Your task to perform on an android device: delete browsing data in the chrome app Image 0: 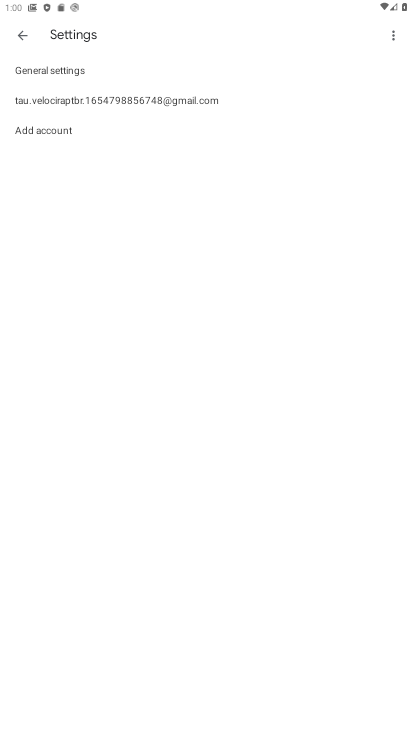
Step 0: drag from (230, 611) to (133, 223)
Your task to perform on an android device: delete browsing data in the chrome app Image 1: 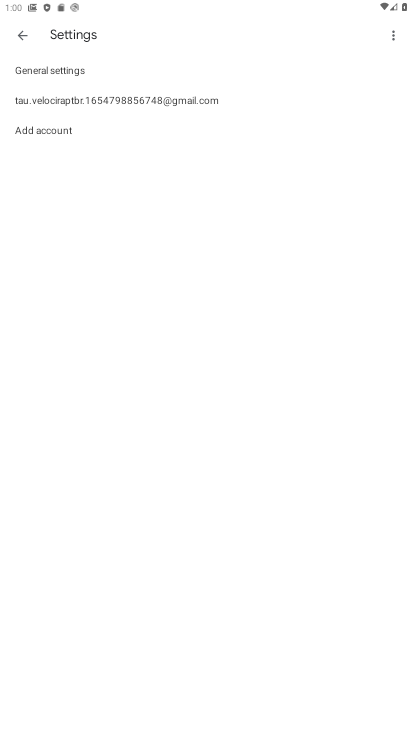
Step 1: press home button
Your task to perform on an android device: delete browsing data in the chrome app Image 2: 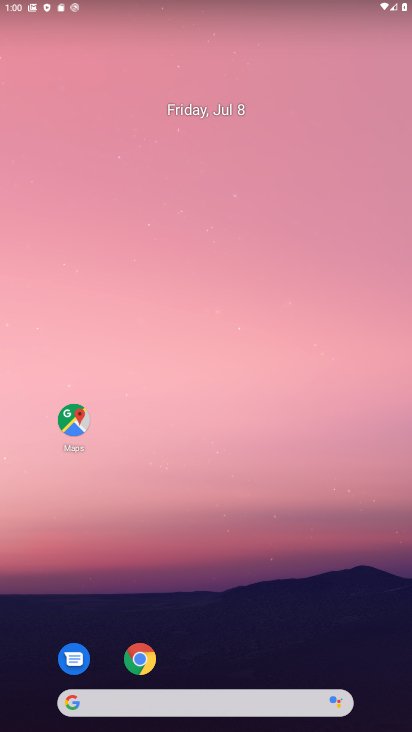
Step 2: click (134, 671)
Your task to perform on an android device: delete browsing data in the chrome app Image 3: 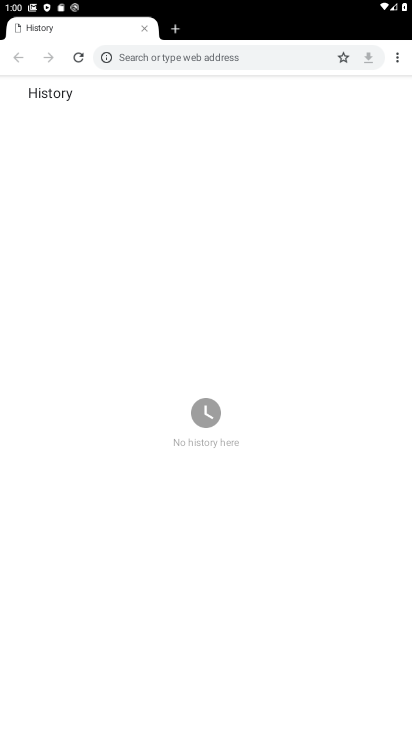
Step 3: click (401, 48)
Your task to perform on an android device: delete browsing data in the chrome app Image 4: 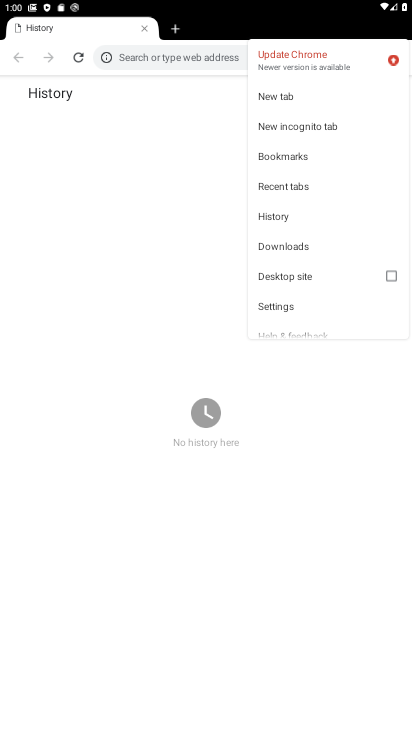
Step 4: click (289, 216)
Your task to perform on an android device: delete browsing data in the chrome app Image 5: 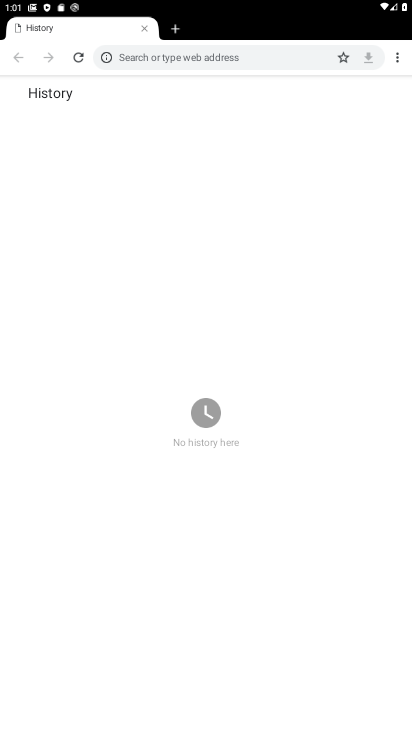
Step 5: task complete